Your task to perform on an android device: open chrome and create a bookmark for the current page Image 0: 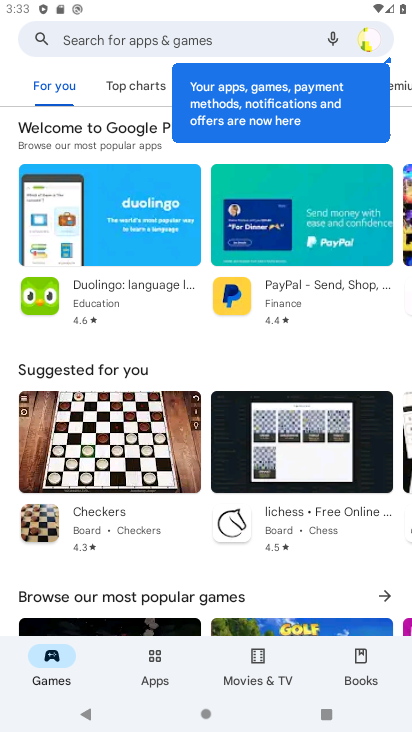
Step 0: press home button
Your task to perform on an android device: open chrome and create a bookmark for the current page Image 1: 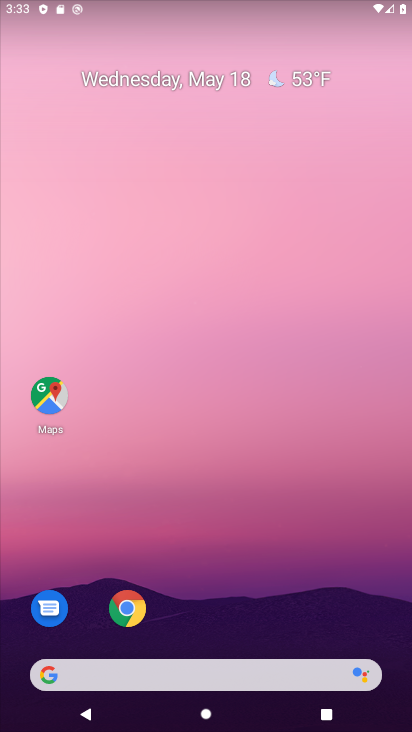
Step 1: drag from (270, 697) to (233, 42)
Your task to perform on an android device: open chrome and create a bookmark for the current page Image 2: 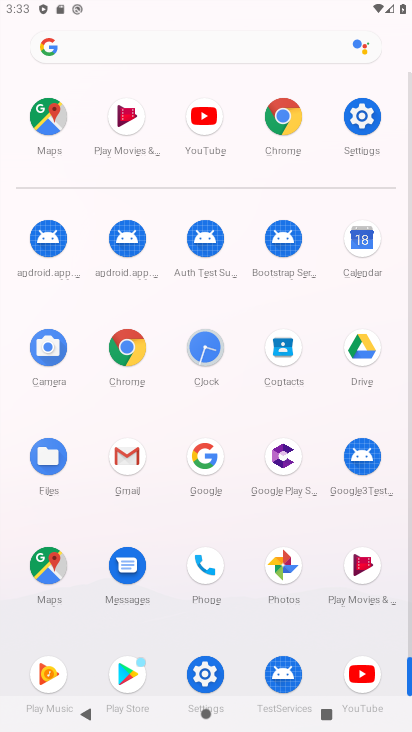
Step 2: click (117, 366)
Your task to perform on an android device: open chrome and create a bookmark for the current page Image 3: 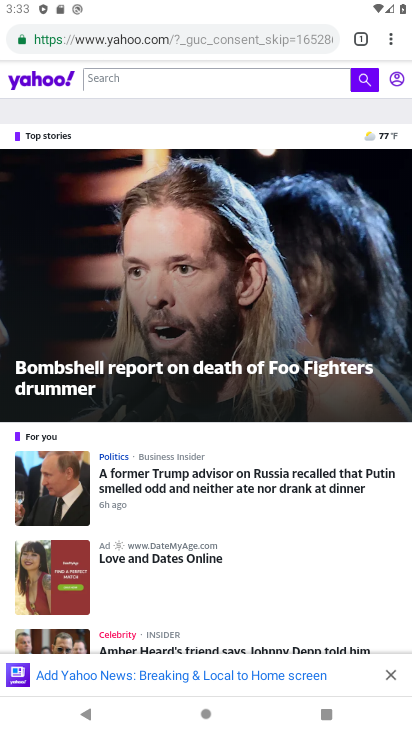
Step 3: click (394, 37)
Your task to perform on an android device: open chrome and create a bookmark for the current page Image 4: 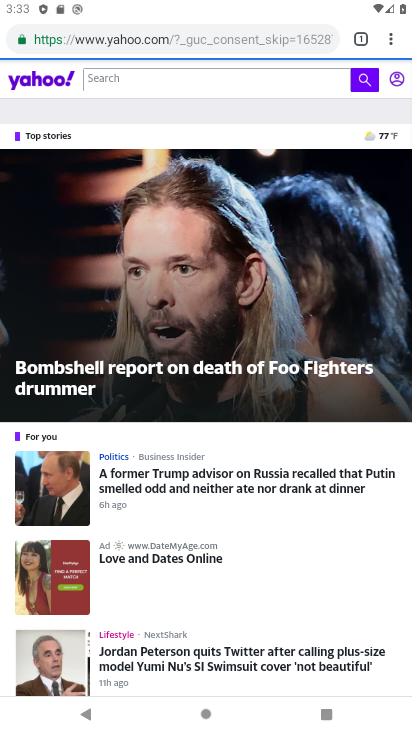
Step 4: click (390, 42)
Your task to perform on an android device: open chrome and create a bookmark for the current page Image 5: 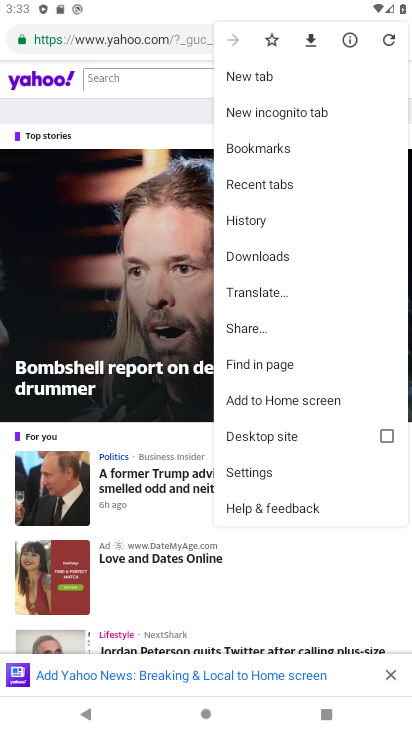
Step 5: click (284, 146)
Your task to perform on an android device: open chrome and create a bookmark for the current page Image 6: 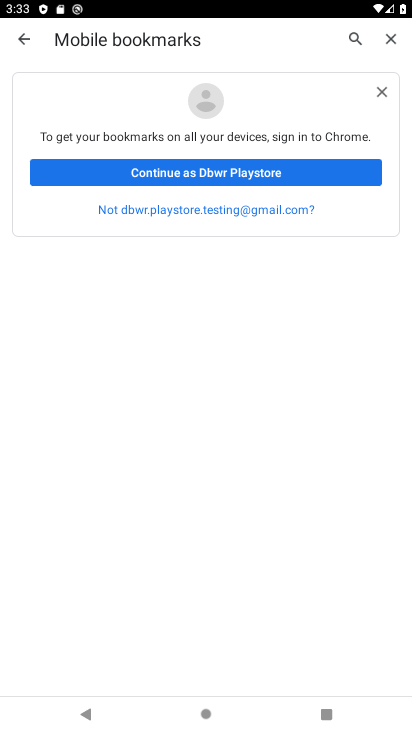
Step 6: task complete